Your task to perform on an android device: open sync settings in chrome Image 0: 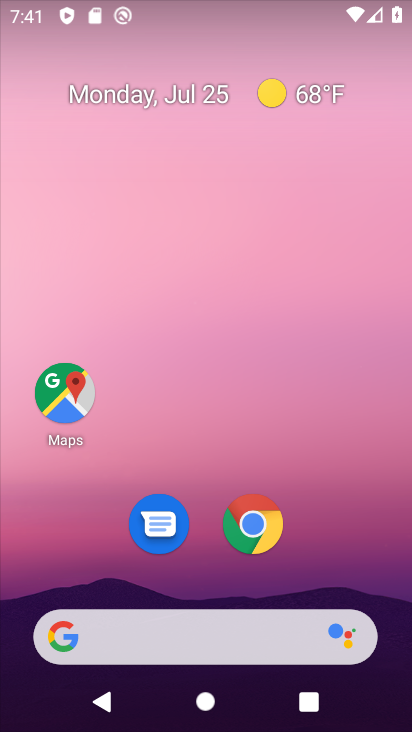
Step 0: click (251, 527)
Your task to perform on an android device: open sync settings in chrome Image 1: 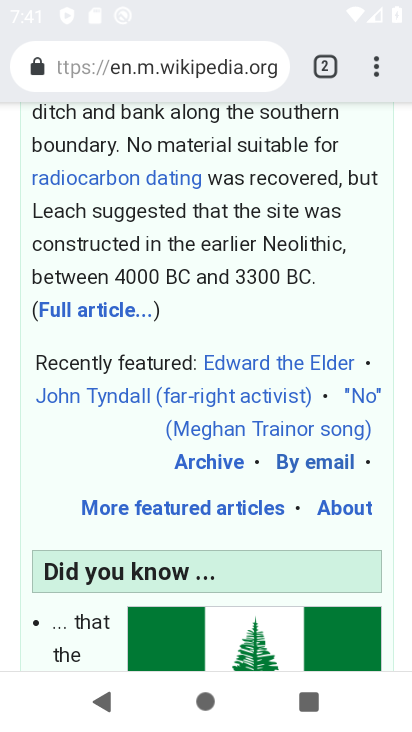
Step 1: drag from (243, 130) to (289, 333)
Your task to perform on an android device: open sync settings in chrome Image 2: 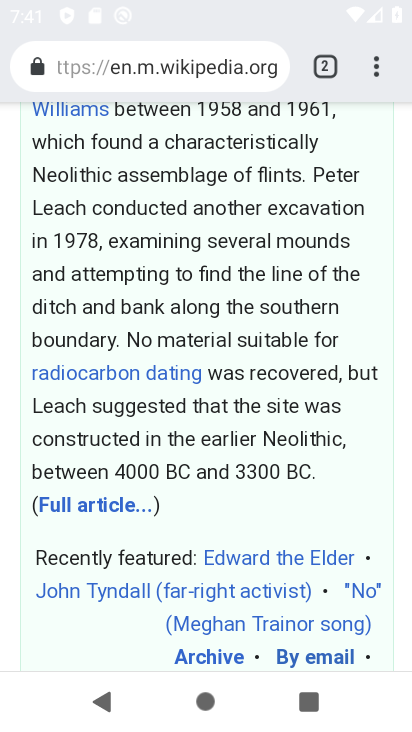
Step 2: press back button
Your task to perform on an android device: open sync settings in chrome Image 3: 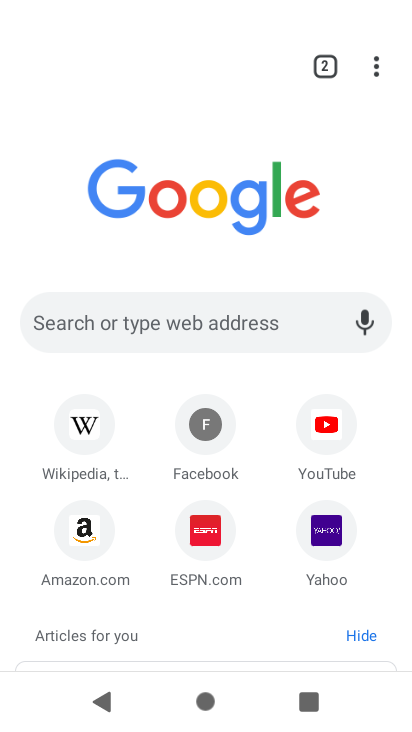
Step 3: click (377, 69)
Your task to perform on an android device: open sync settings in chrome Image 4: 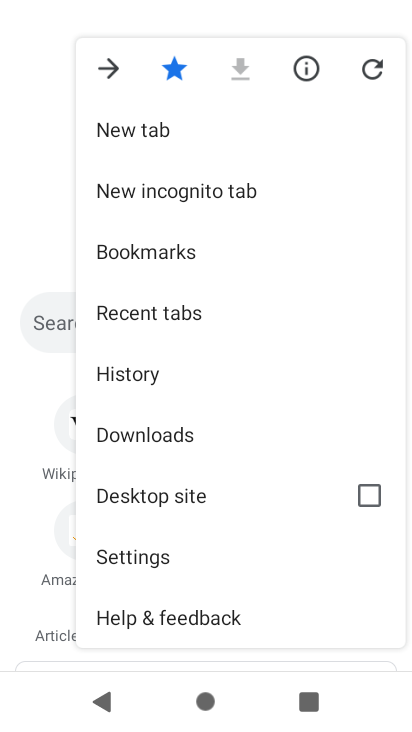
Step 4: click (156, 547)
Your task to perform on an android device: open sync settings in chrome Image 5: 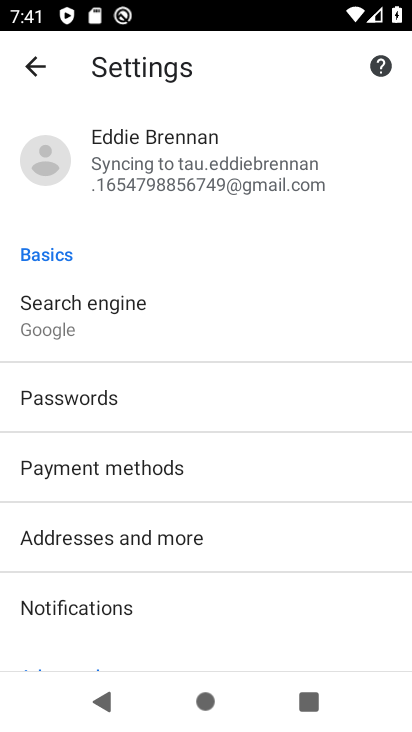
Step 5: click (206, 168)
Your task to perform on an android device: open sync settings in chrome Image 6: 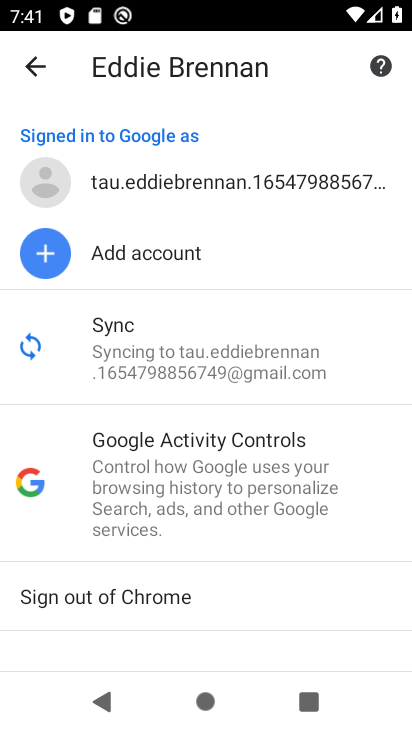
Step 6: click (178, 351)
Your task to perform on an android device: open sync settings in chrome Image 7: 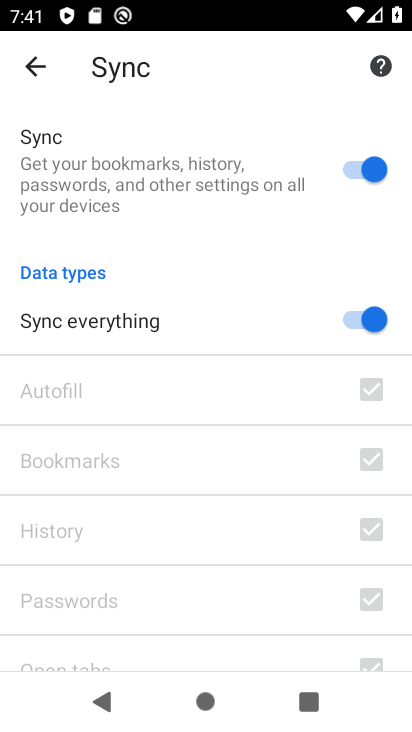
Step 7: task complete